Your task to perform on an android device: Go to eBay Image 0: 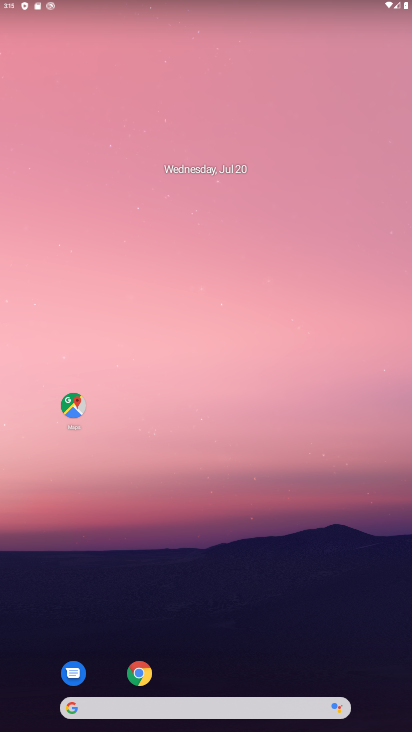
Step 0: click (268, 708)
Your task to perform on an android device: Go to eBay Image 1: 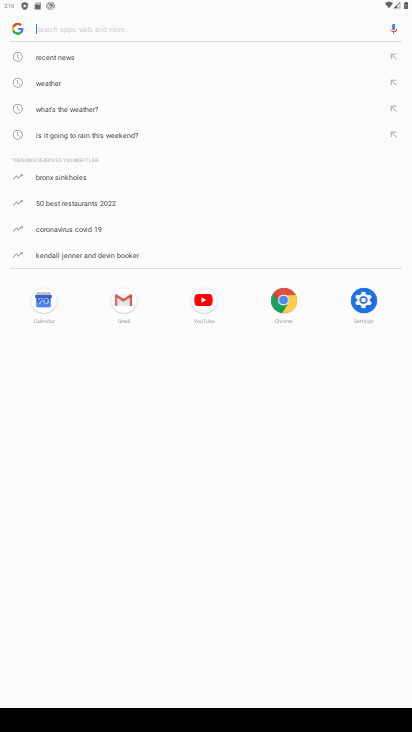
Step 1: type "eBay"
Your task to perform on an android device: Go to eBay Image 2: 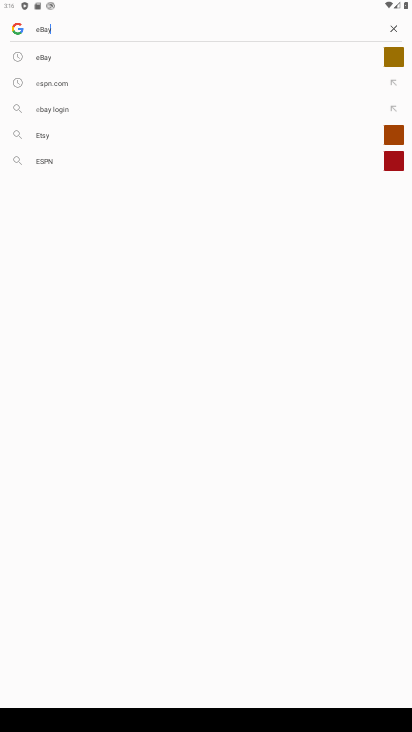
Step 2: type ""
Your task to perform on an android device: Go to eBay Image 3: 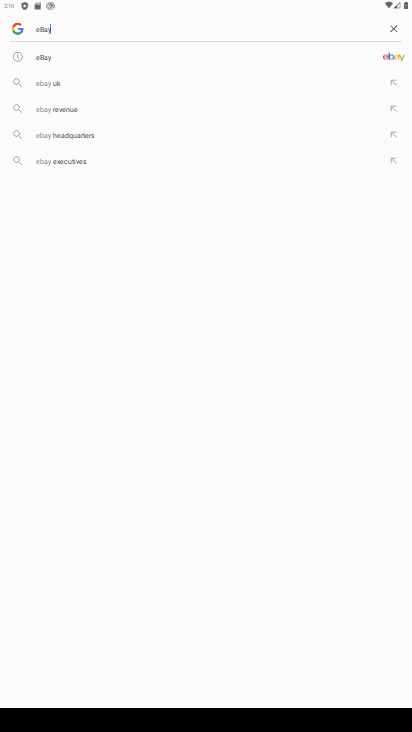
Step 3: press enter
Your task to perform on an android device: Go to eBay Image 4: 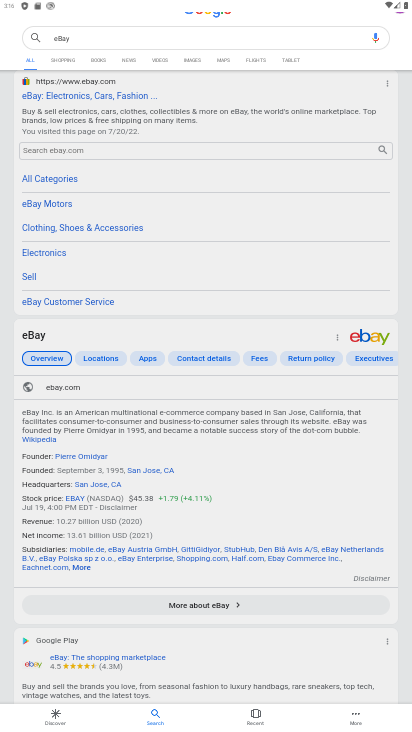
Step 4: task complete